Your task to perform on an android device: Go to sound settings Image 0: 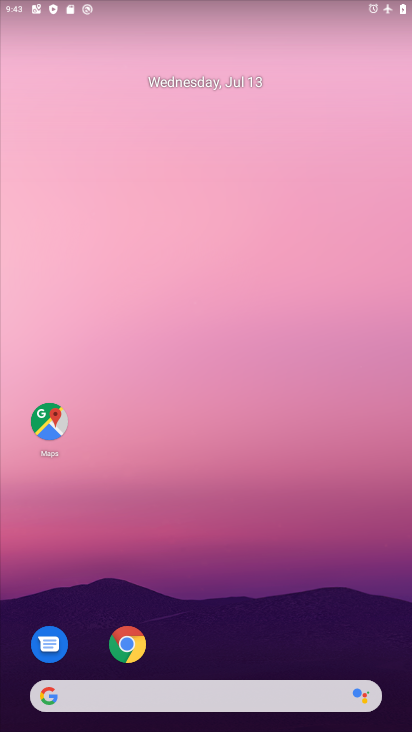
Step 0: drag from (218, 706) to (246, 86)
Your task to perform on an android device: Go to sound settings Image 1: 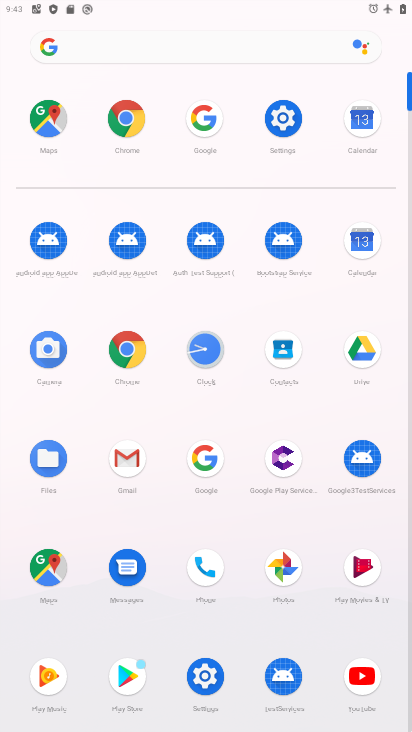
Step 1: click (281, 114)
Your task to perform on an android device: Go to sound settings Image 2: 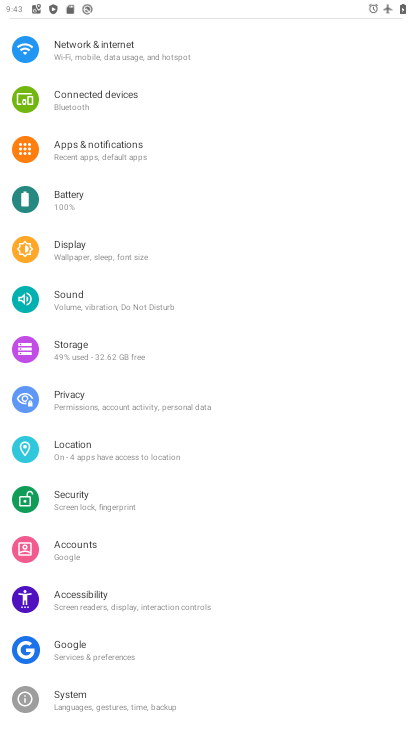
Step 2: click (74, 306)
Your task to perform on an android device: Go to sound settings Image 3: 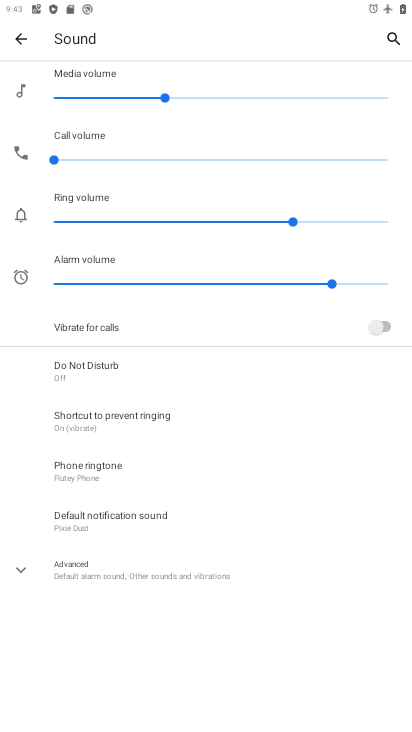
Step 3: task complete